Your task to perform on an android device: toggle location history Image 0: 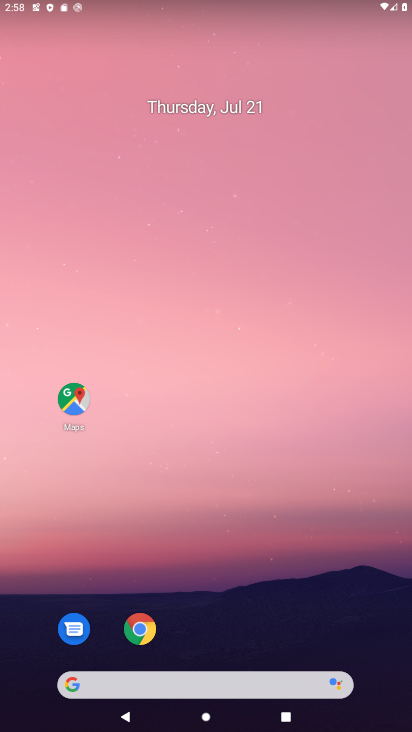
Step 0: click (166, 405)
Your task to perform on an android device: toggle location history Image 1: 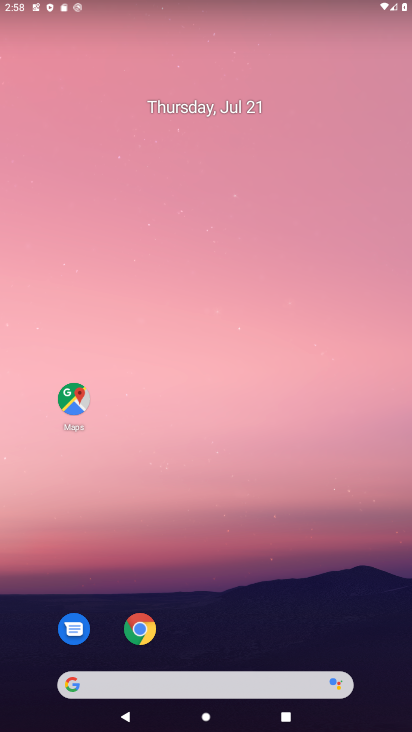
Step 1: drag from (362, 691) to (282, 83)
Your task to perform on an android device: toggle location history Image 2: 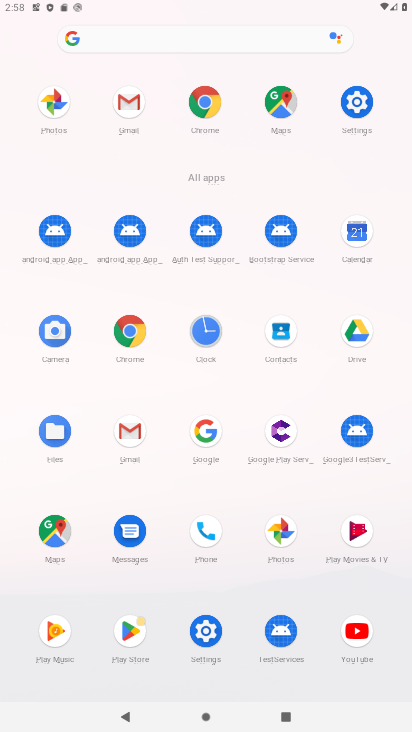
Step 2: click (358, 111)
Your task to perform on an android device: toggle location history Image 3: 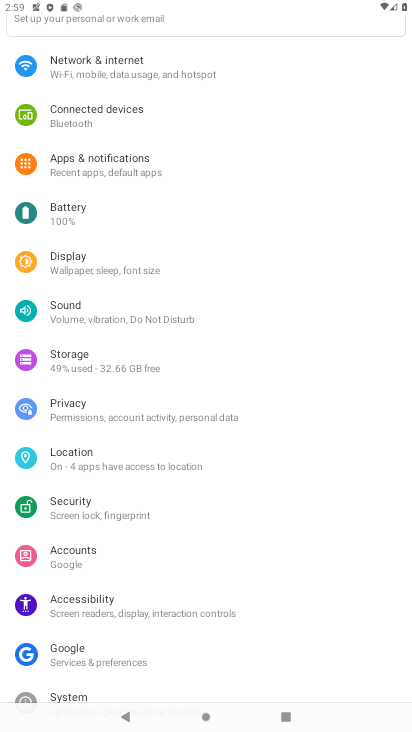
Step 3: click (98, 458)
Your task to perform on an android device: toggle location history Image 4: 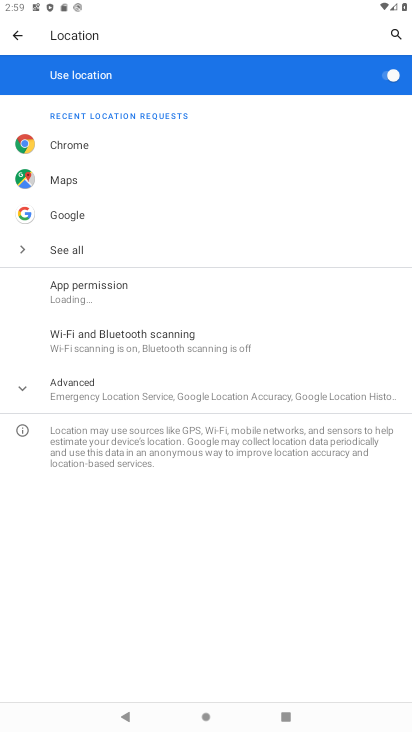
Step 4: click (18, 393)
Your task to perform on an android device: toggle location history Image 5: 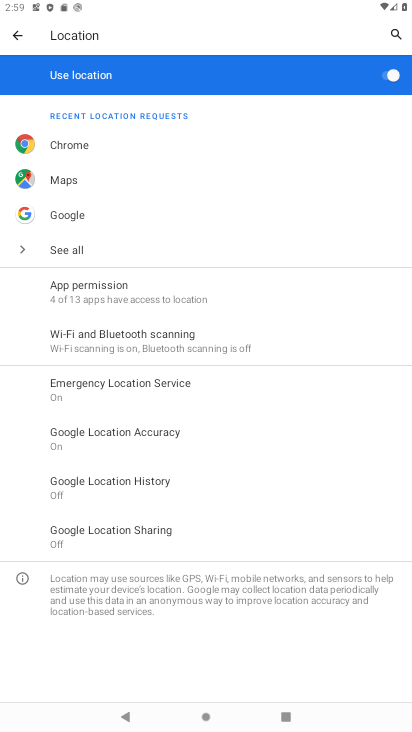
Step 5: click (126, 489)
Your task to perform on an android device: toggle location history Image 6: 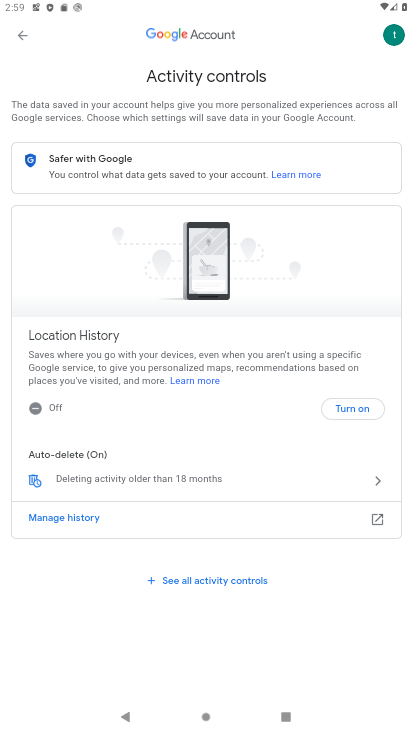
Step 6: click (345, 404)
Your task to perform on an android device: toggle location history Image 7: 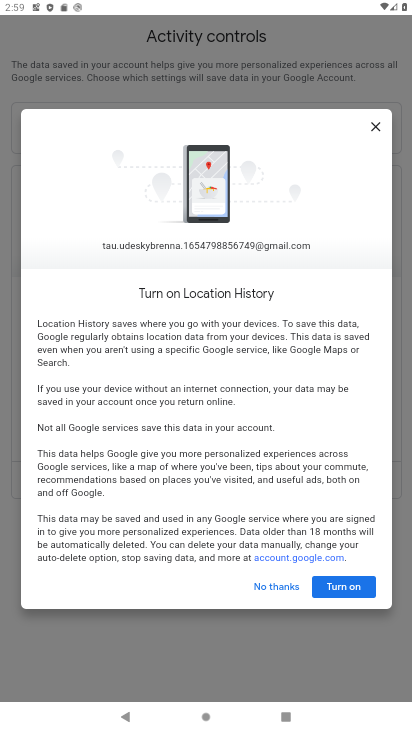
Step 7: click (351, 588)
Your task to perform on an android device: toggle location history Image 8: 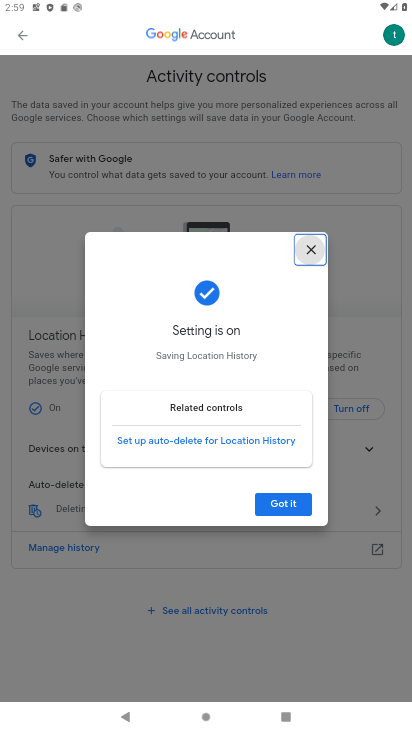
Step 8: click (297, 506)
Your task to perform on an android device: toggle location history Image 9: 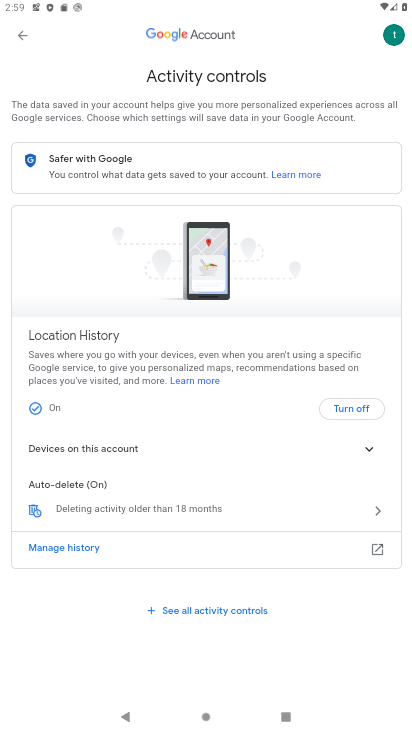
Step 9: task complete